Your task to perform on an android device: change the clock display to analog Image 0: 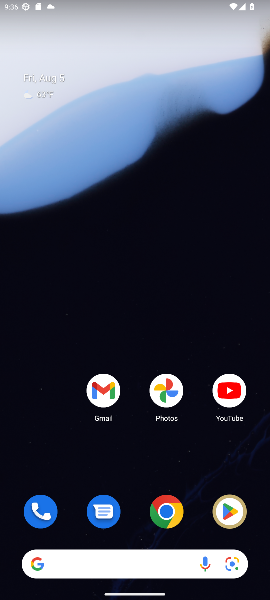
Step 0: drag from (140, 572) to (191, 179)
Your task to perform on an android device: change the clock display to analog Image 1: 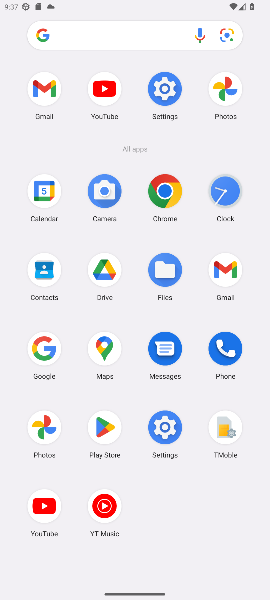
Step 1: click (225, 190)
Your task to perform on an android device: change the clock display to analog Image 2: 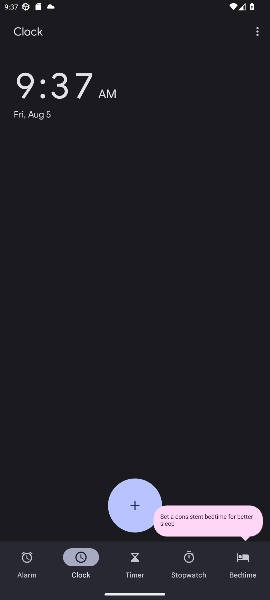
Step 2: click (259, 34)
Your task to perform on an android device: change the clock display to analog Image 3: 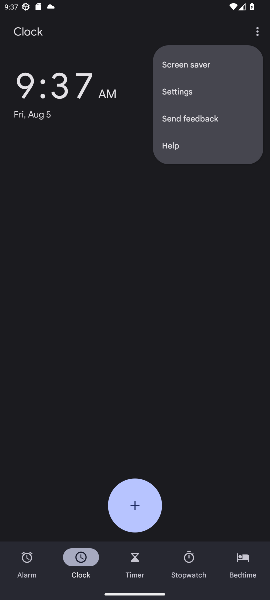
Step 3: click (185, 89)
Your task to perform on an android device: change the clock display to analog Image 4: 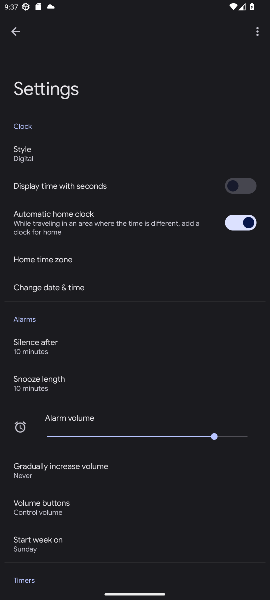
Step 4: click (32, 157)
Your task to perform on an android device: change the clock display to analog Image 5: 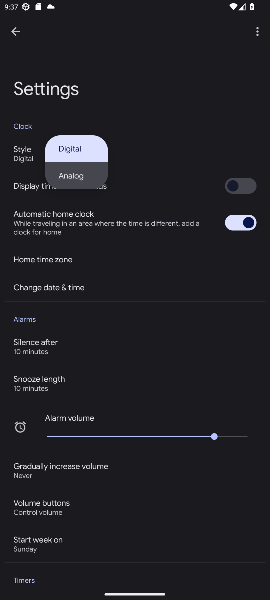
Step 5: click (66, 175)
Your task to perform on an android device: change the clock display to analog Image 6: 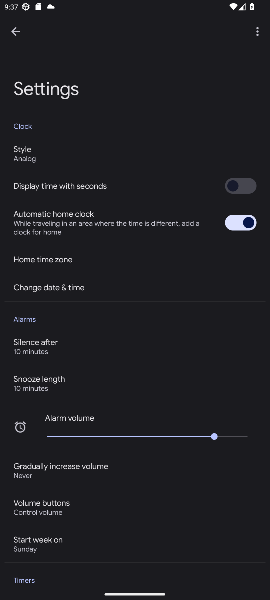
Step 6: task complete